Your task to perform on an android device: open the mobile data screen to see how much data has been used Image 0: 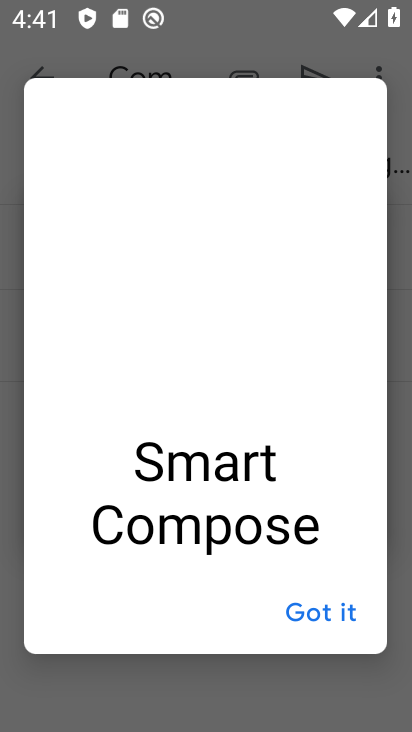
Step 0: press home button
Your task to perform on an android device: open the mobile data screen to see how much data has been used Image 1: 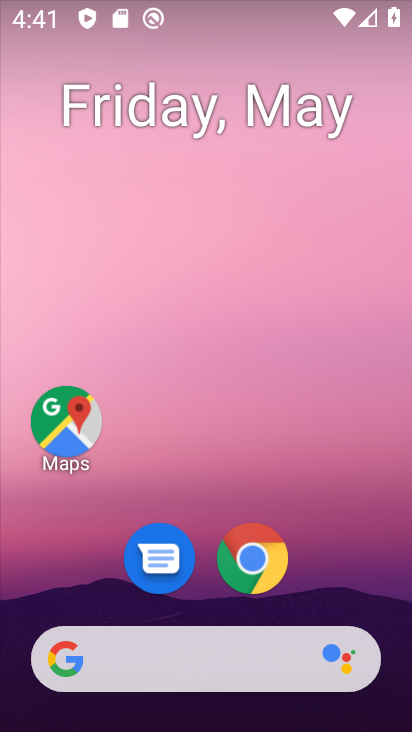
Step 1: drag from (348, 605) to (277, 140)
Your task to perform on an android device: open the mobile data screen to see how much data has been used Image 2: 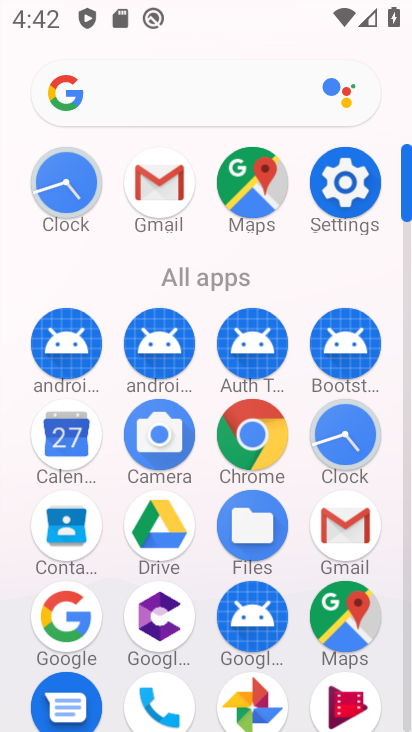
Step 2: click (358, 183)
Your task to perform on an android device: open the mobile data screen to see how much data has been used Image 3: 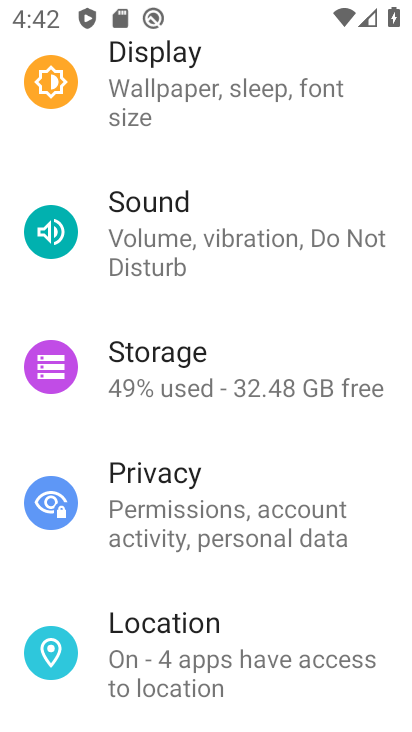
Step 3: drag from (244, 153) to (232, 731)
Your task to perform on an android device: open the mobile data screen to see how much data has been used Image 4: 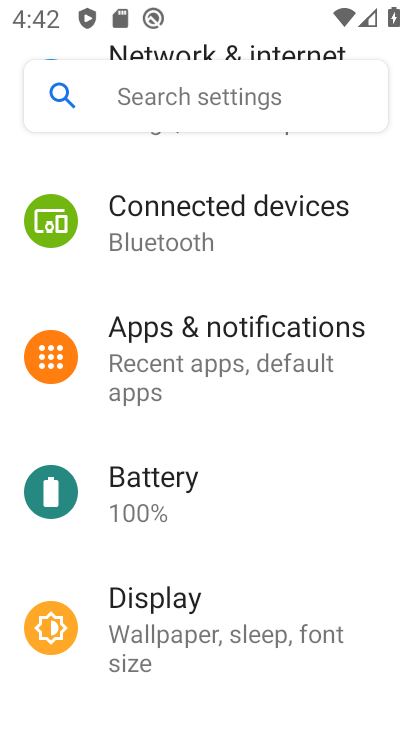
Step 4: drag from (258, 286) to (231, 696)
Your task to perform on an android device: open the mobile data screen to see how much data has been used Image 5: 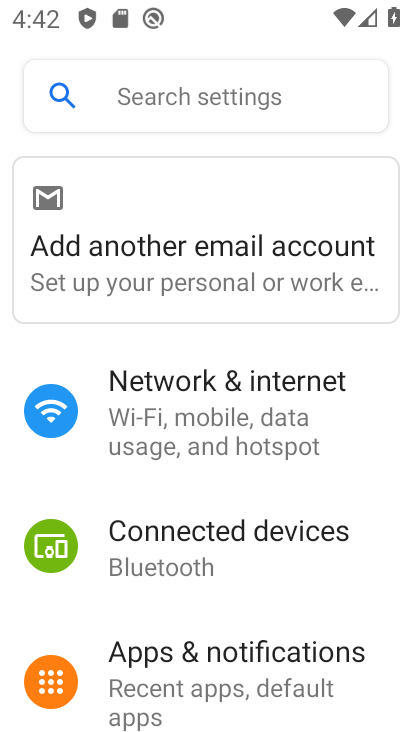
Step 5: click (196, 383)
Your task to perform on an android device: open the mobile data screen to see how much data has been used Image 6: 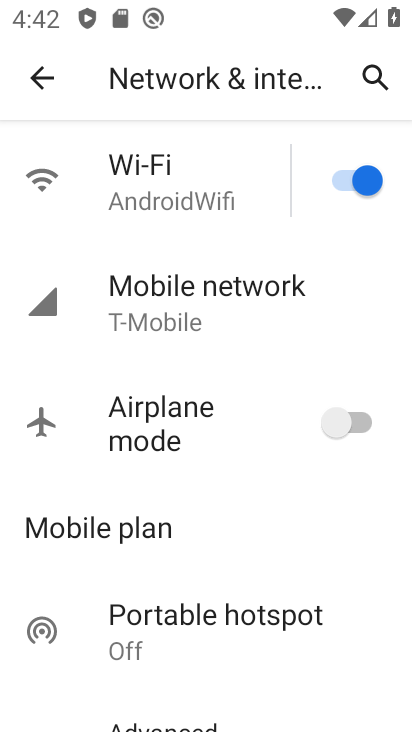
Step 6: click (215, 318)
Your task to perform on an android device: open the mobile data screen to see how much data has been used Image 7: 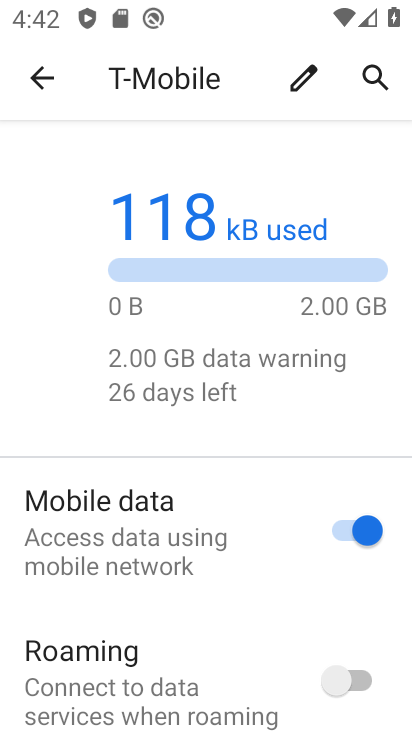
Step 7: task complete